Your task to perform on an android device: open chrome and create a bookmark for the current page Image 0: 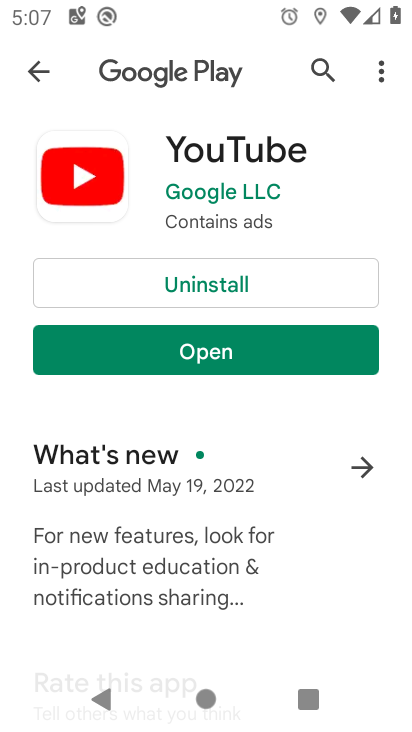
Step 0: press home button
Your task to perform on an android device: open chrome and create a bookmark for the current page Image 1: 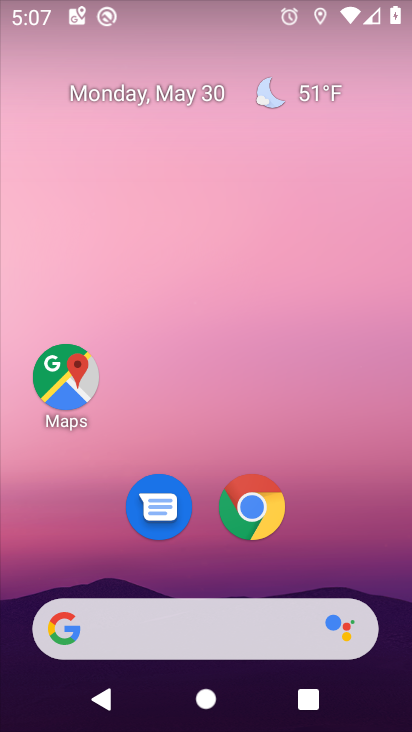
Step 1: click (286, 506)
Your task to perform on an android device: open chrome and create a bookmark for the current page Image 2: 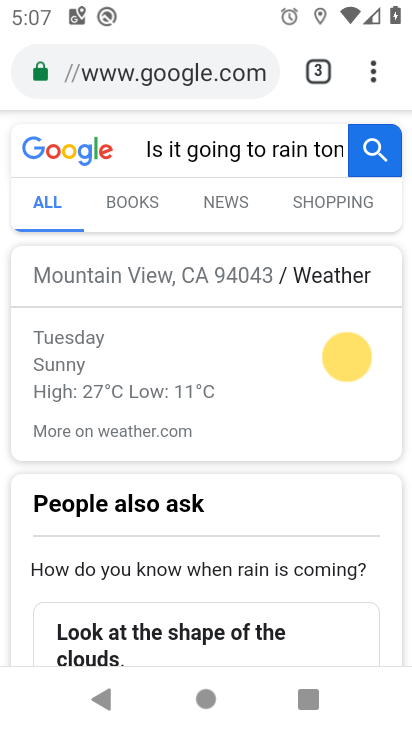
Step 2: task complete